Your task to perform on an android device: Open eBay Image 0: 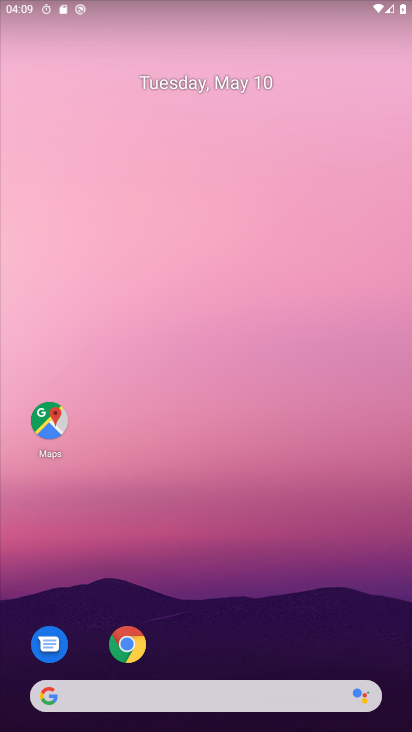
Step 0: press home button
Your task to perform on an android device: Open eBay Image 1: 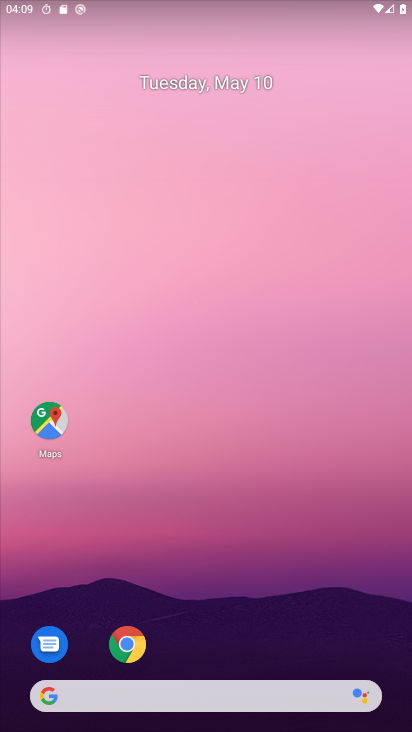
Step 1: drag from (214, 656) to (229, 192)
Your task to perform on an android device: Open eBay Image 2: 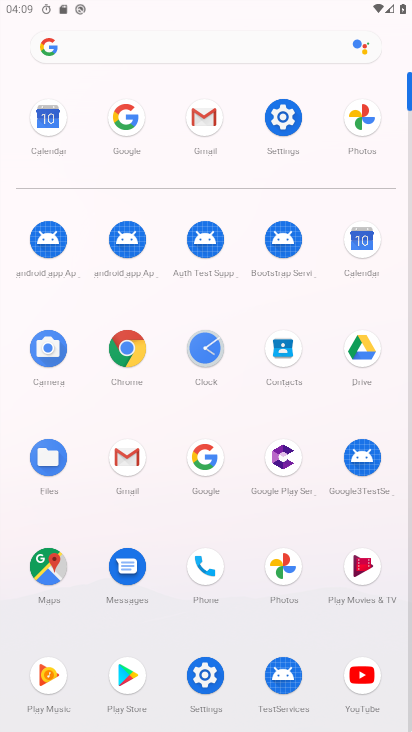
Step 2: click (130, 340)
Your task to perform on an android device: Open eBay Image 3: 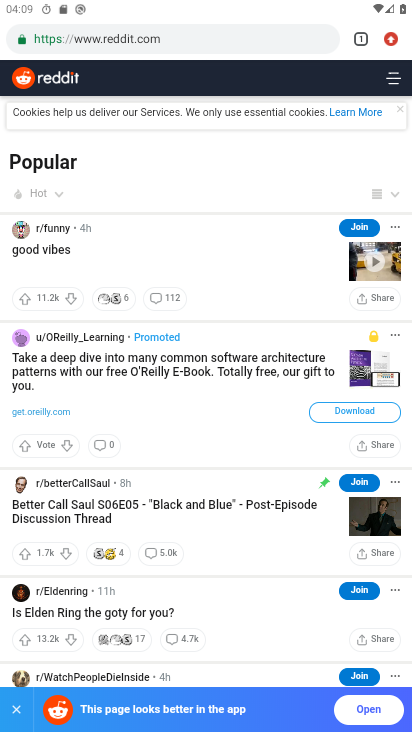
Step 3: click (361, 40)
Your task to perform on an android device: Open eBay Image 4: 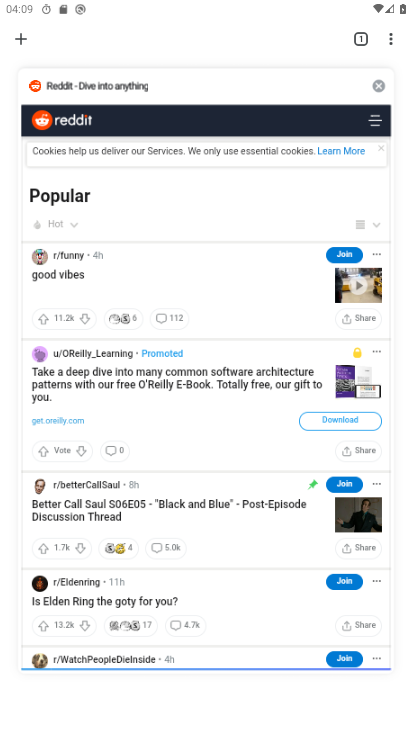
Step 4: click (377, 83)
Your task to perform on an android device: Open eBay Image 5: 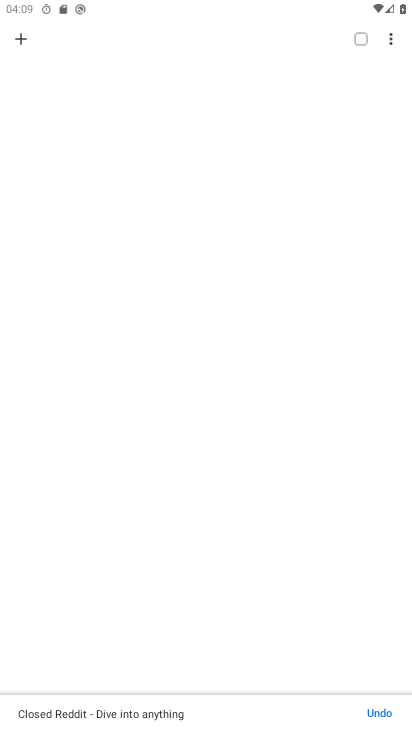
Step 5: click (23, 39)
Your task to perform on an android device: Open eBay Image 6: 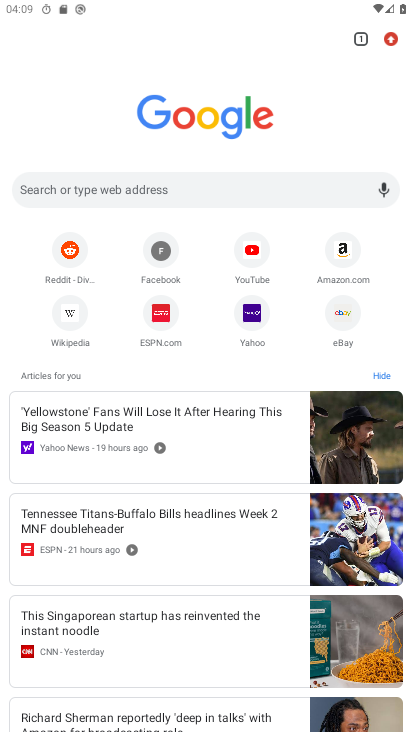
Step 6: click (338, 312)
Your task to perform on an android device: Open eBay Image 7: 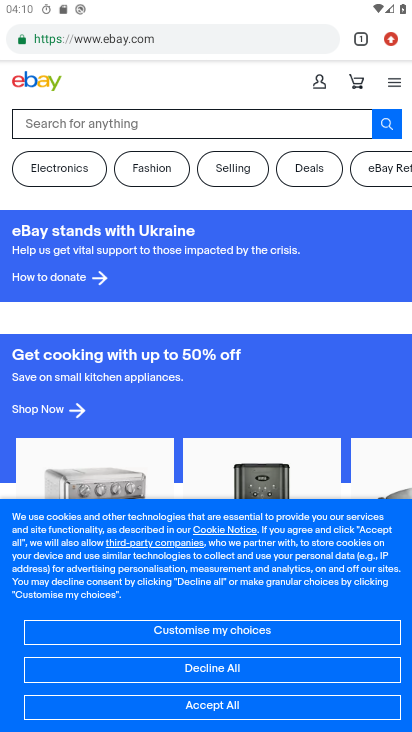
Step 7: click (218, 706)
Your task to perform on an android device: Open eBay Image 8: 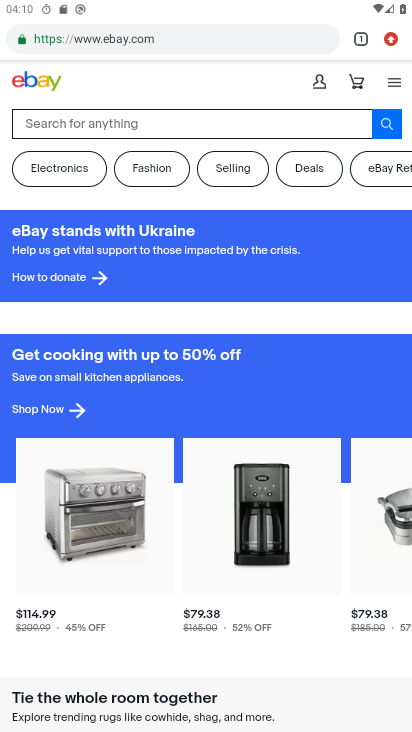
Step 8: task complete